Your task to perform on an android device: delete browsing data in the chrome app Image 0: 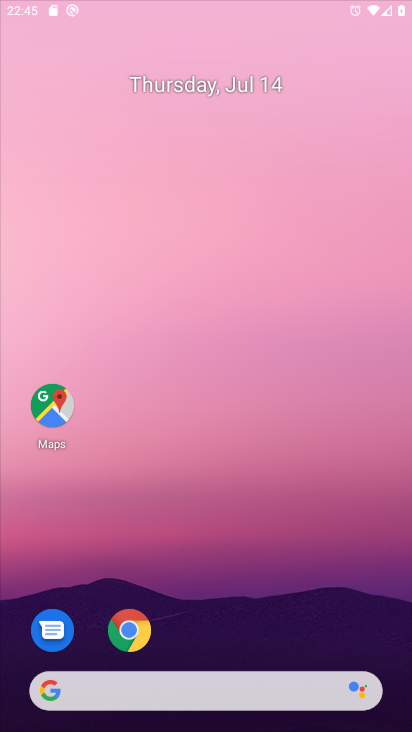
Step 0: click (237, 245)
Your task to perform on an android device: delete browsing data in the chrome app Image 1: 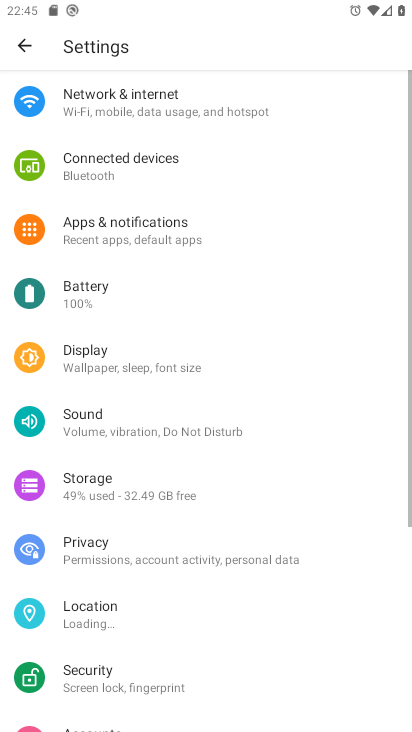
Step 1: press home button
Your task to perform on an android device: delete browsing data in the chrome app Image 2: 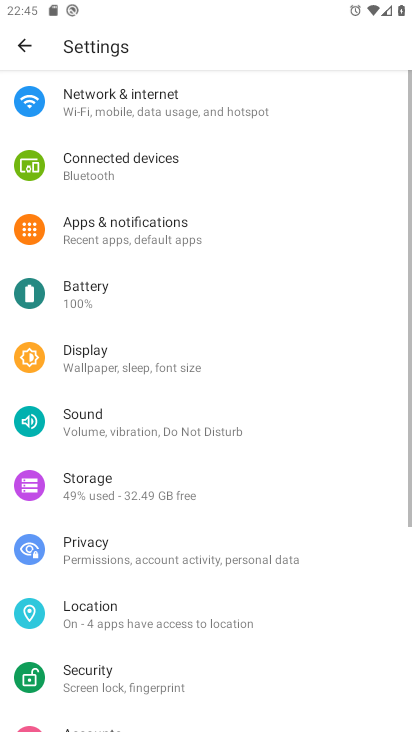
Step 2: press home button
Your task to perform on an android device: delete browsing data in the chrome app Image 3: 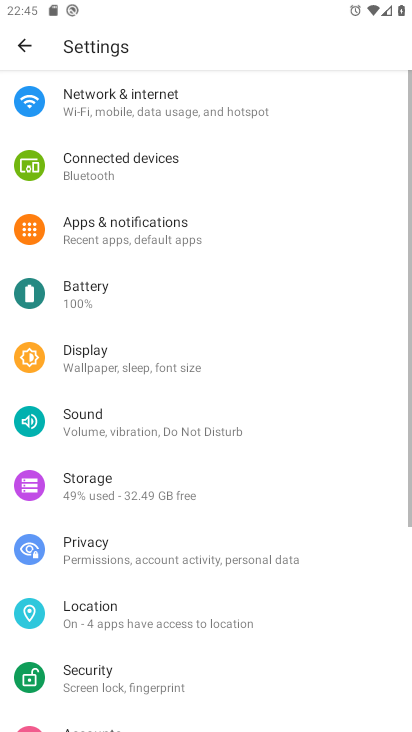
Step 3: drag from (273, 116) to (216, 714)
Your task to perform on an android device: delete browsing data in the chrome app Image 4: 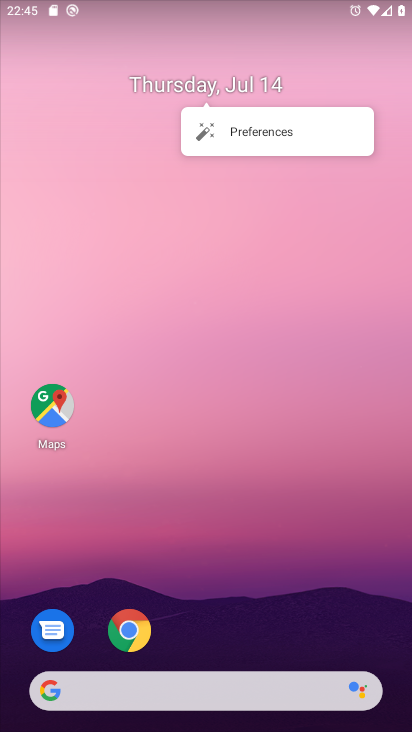
Step 4: drag from (217, 645) to (293, 175)
Your task to perform on an android device: delete browsing data in the chrome app Image 5: 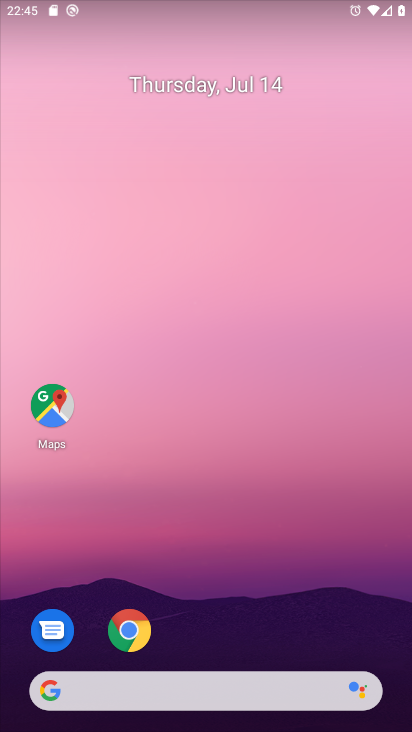
Step 5: click (127, 628)
Your task to perform on an android device: delete browsing data in the chrome app Image 6: 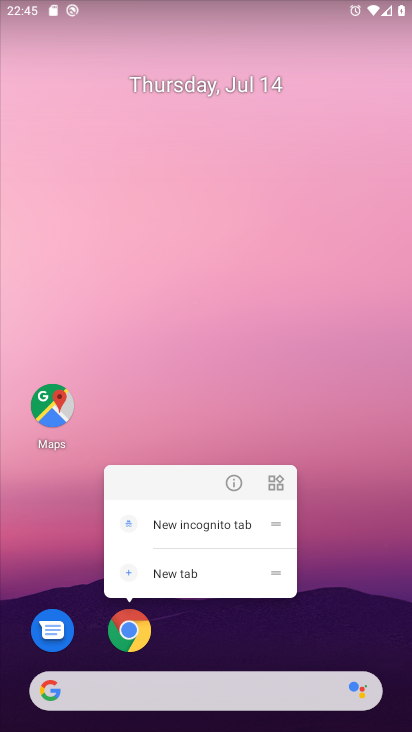
Step 6: click (233, 477)
Your task to perform on an android device: delete browsing data in the chrome app Image 7: 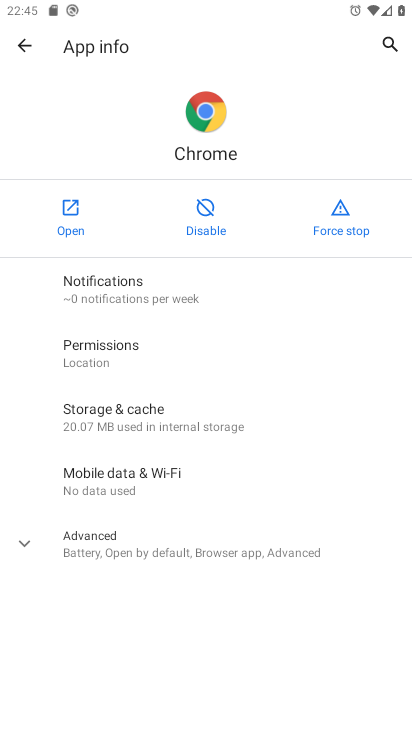
Step 7: click (73, 192)
Your task to perform on an android device: delete browsing data in the chrome app Image 8: 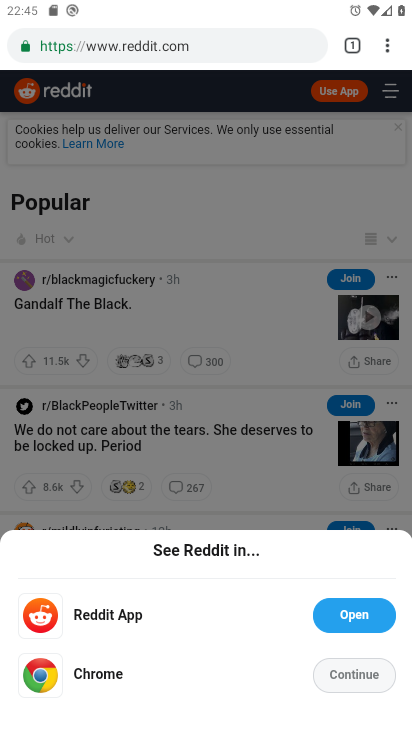
Step 8: click (387, 33)
Your task to perform on an android device: delete browsing data in the chrome app Image 9: 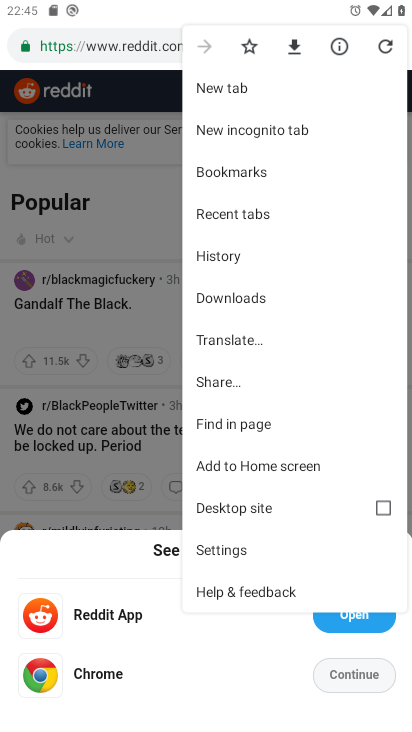
Step 9: drag from (270, 545) to (325, 103)
Your task to perform on an android device: delete browsing data in the chrome app Image 10: 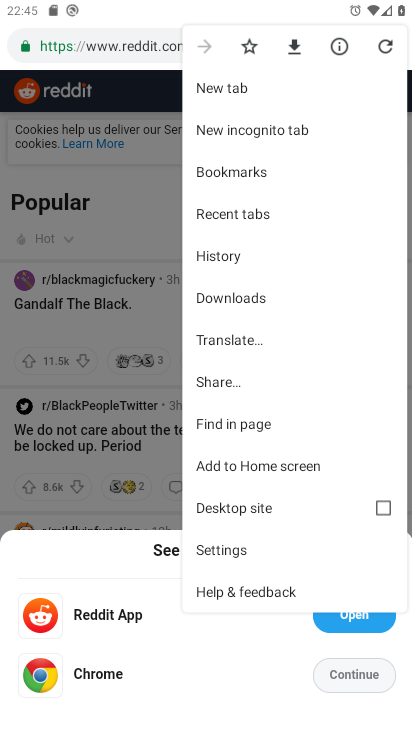
Step 10: click (232, 240)
Your task to perform on an android device: delete browsing data in the chrome app Image 11: 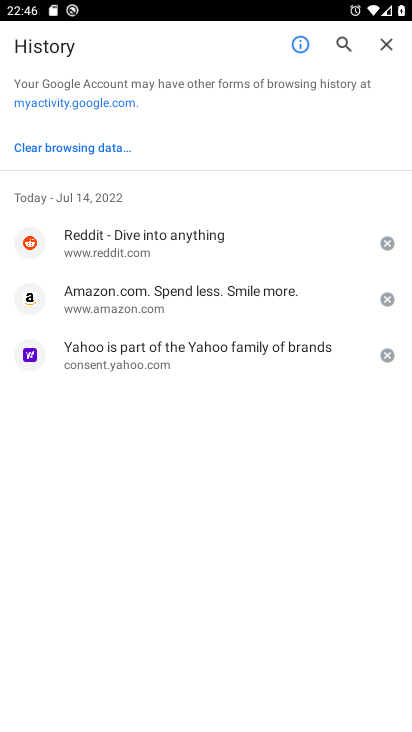
Step 11: click (67, 152)
Your task to perform on an android device: delete browsing data in the chrome app Image 12: 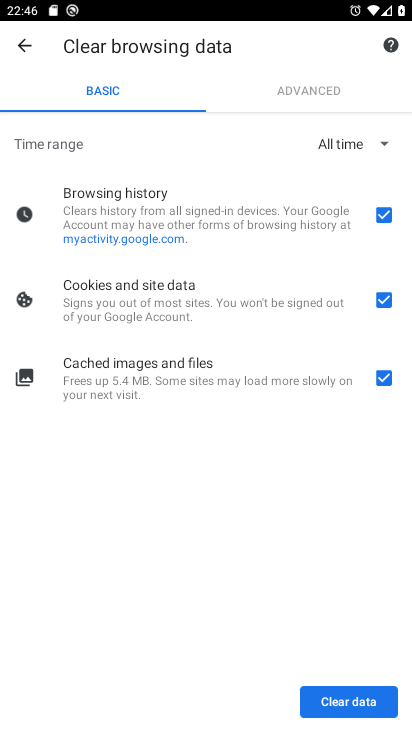
Step 12: click (347, 698)
Your task to perform on an android device: delete browsing data in the chrome app Image 13: 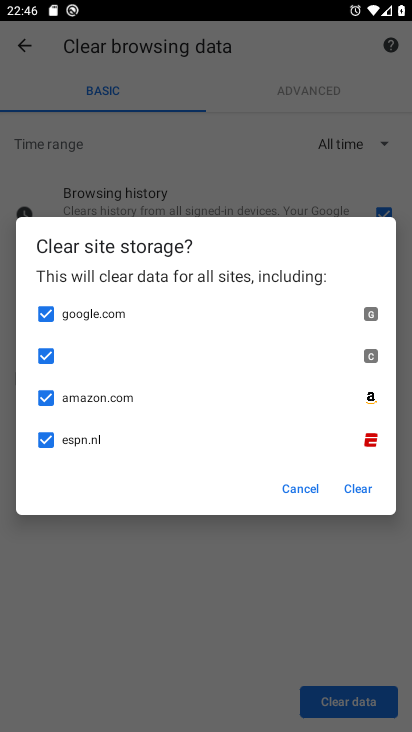
Step 13: click (367, 479)
Your task to perform on an android device: delete browsing data in the chrome app Image 14: 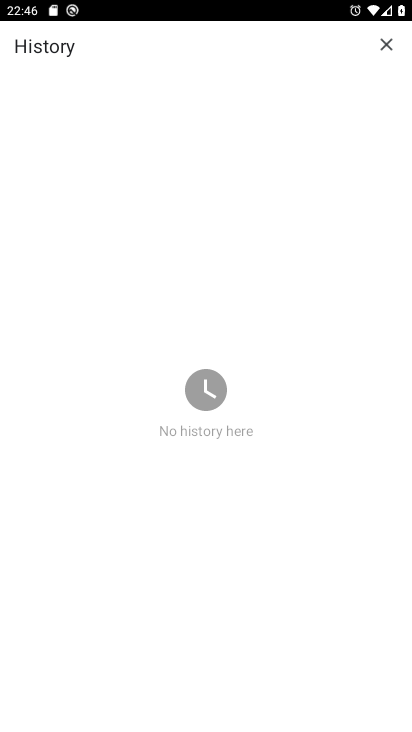
Step 14: task complete